Your task to perform on an android device: Empty the shopping cart on walmart. Add "logitech g502" to the cart on walmart, then select checkout. Image 0: 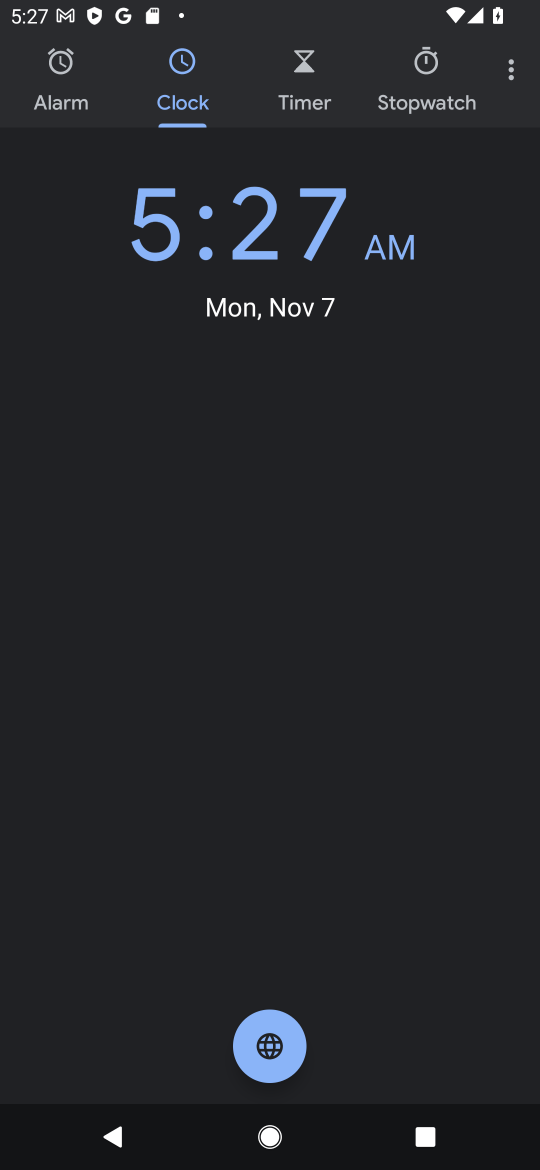
Step 0: task complete